Your task to perform on an android device: Open the calendar and show me this week's events? Image 0: 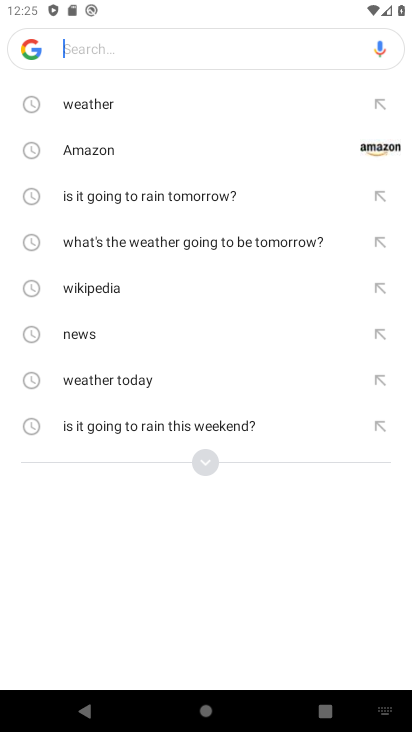
Step 0: task complete